Your task to perform on an android device: Is it going to rain this weekend? Image 0: 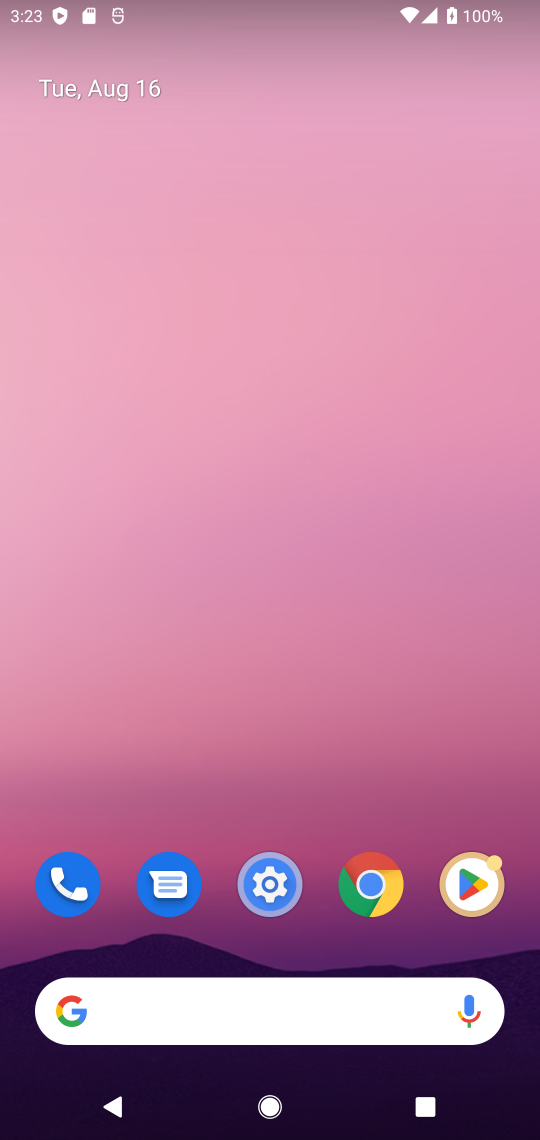
Step 0: drag from (179, 900) to (149, 295)
Your task to perform on an android device: Is it going to rain this weekend? Image 1: 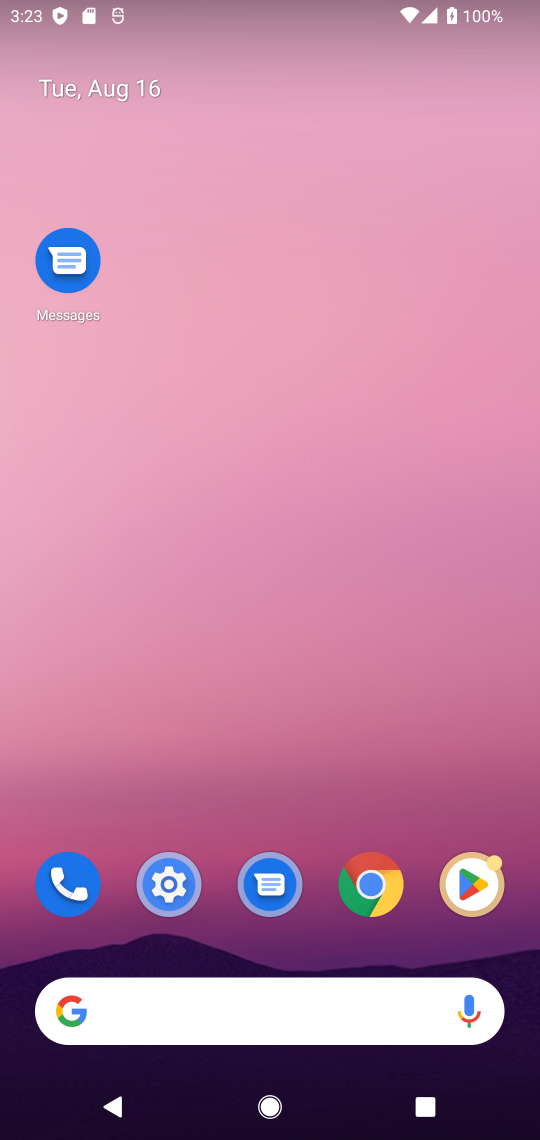
Step 1: click (126, 1028)
Your task to perform on an android device: Is it going to rain this weekend? Image 2: 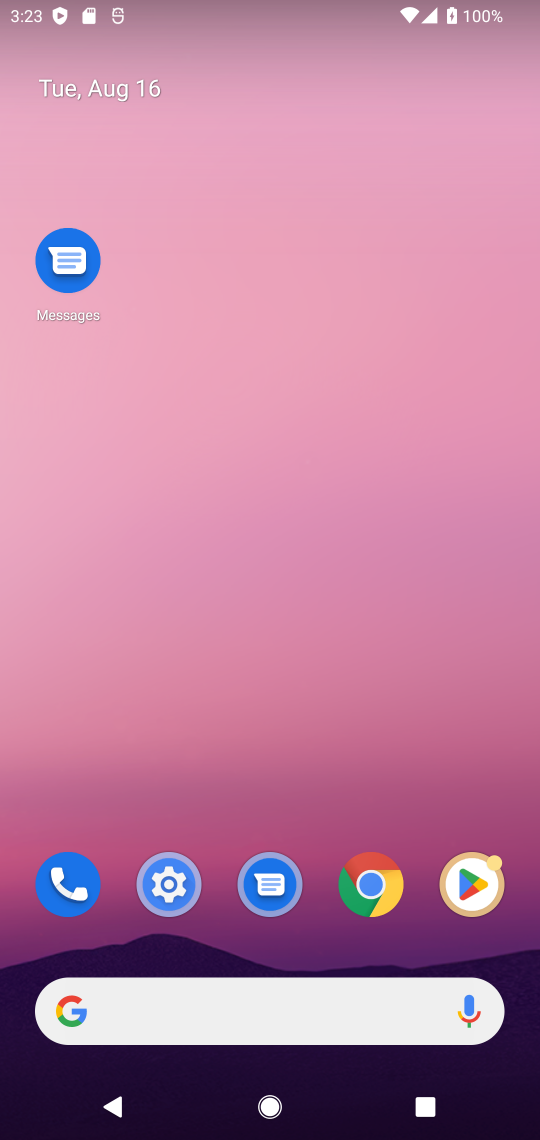
Step 2: click (126, 1022)
Your task to perform on an android device: Is it going to rain this weekend? Image 3: 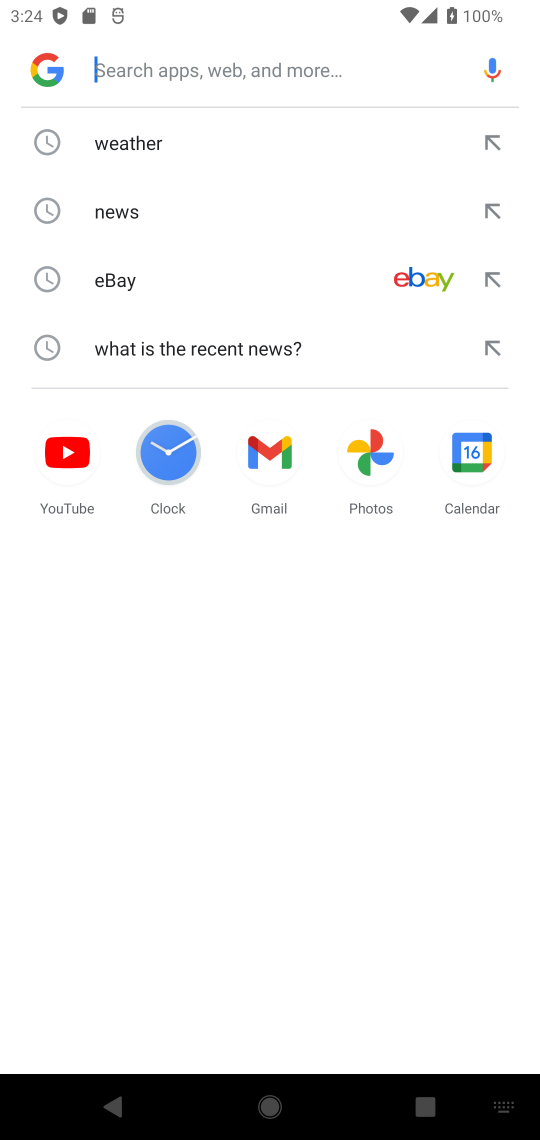
Step 3: type "Is it going to rain this weekend?"
Your task to perform on an android device: Is it going to rain this weekend? Image 4: 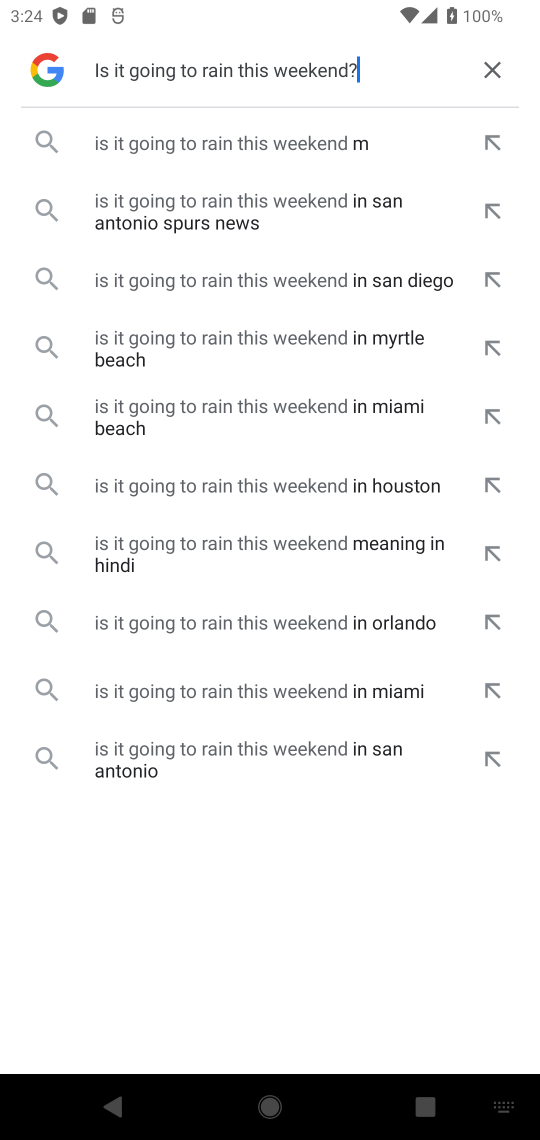
Step 4: type ""
Your task to perform on an android device: Is it going to rain this weekend? Image 5: 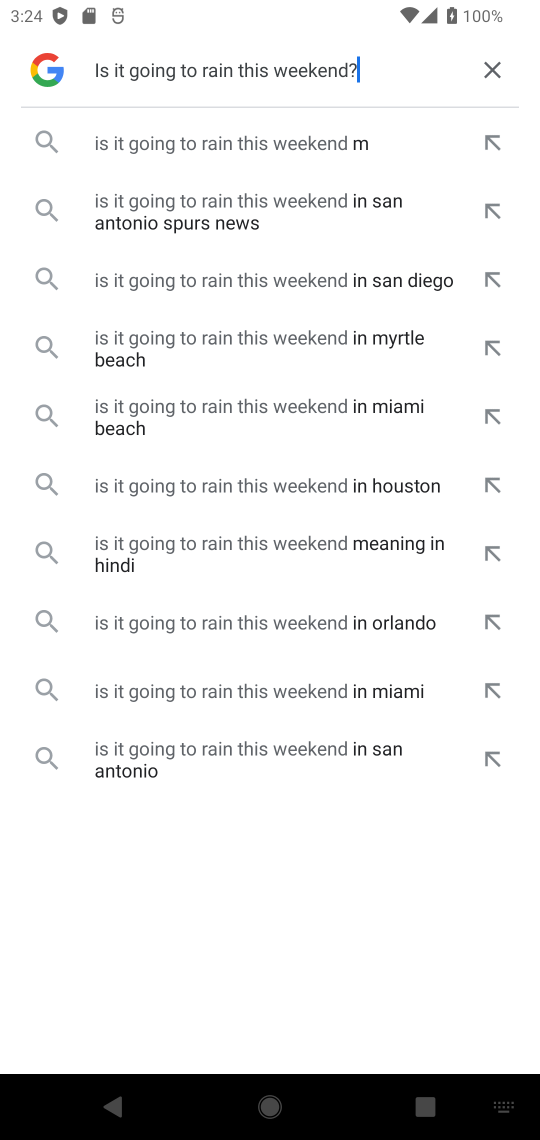
Step 5: task complete